Your task to perform on an android device: open chrome privacy settings Image 0: 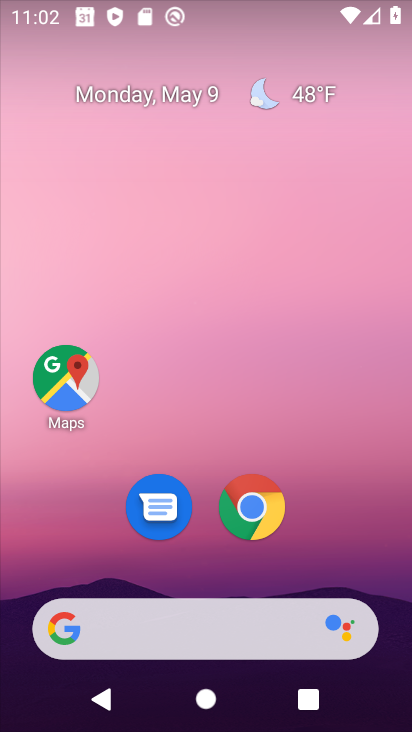
Step 0: click (243, 506)
Your task to perform on an android device: open chrome privacy settings Image 1: 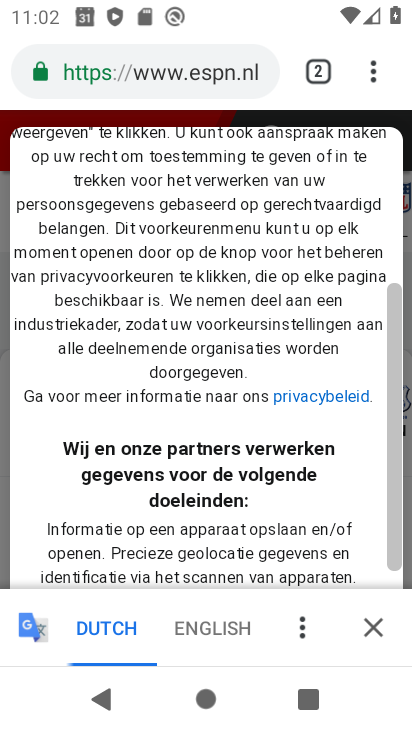
Step 1: click (377, 67)
Your task to perform on an android device: open chrome privacy settings Image 2: 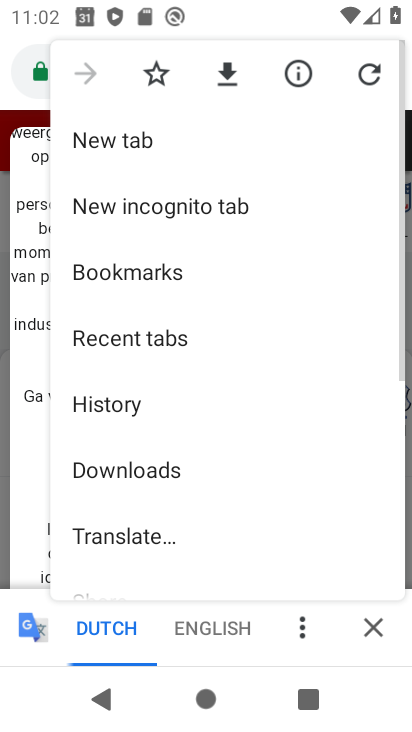
Step 2: drag from (208, 505) to (208, 180)
Your task to perform on an android device: open chrome privacy settings Image 3: 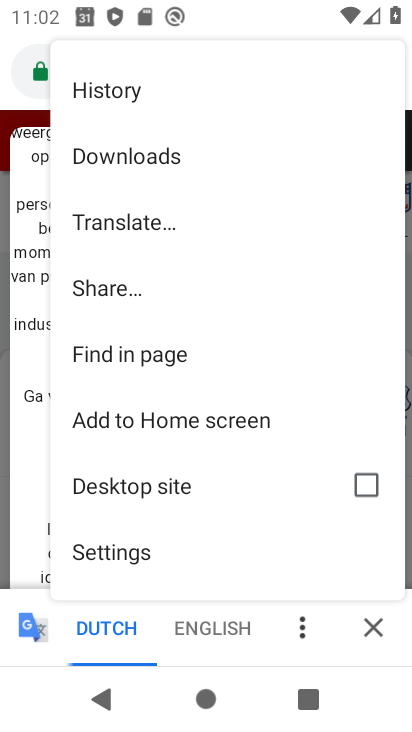
Step 3: click (155, 550)
Your task to perform on an android device: open chrome privacy settings Image 4: 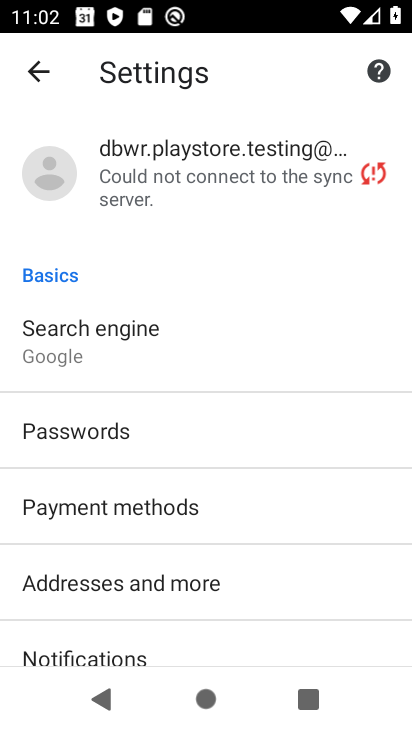
Step 4: drag from (259, 601) to (257, 211)
Your task to perform on an android device: open chrome privacy settings Image 5: 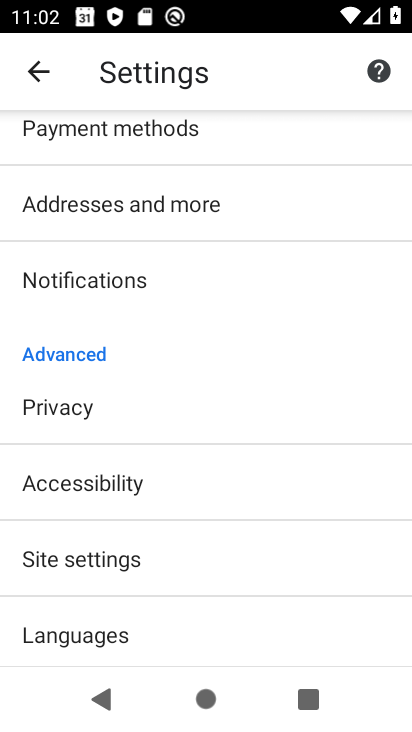
Step 5: click (98, 403)
Your task to perform on an android device: open chrome privacy settings Image 6: 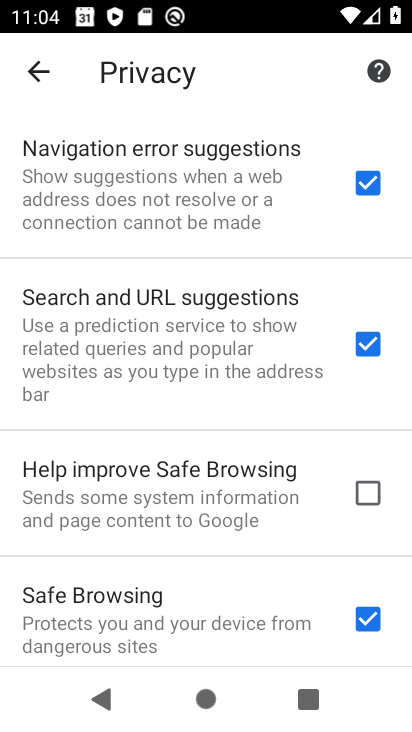
Step 6: task complete